Your task to perform on an android device: set default search engine in the chrome app Image 0: 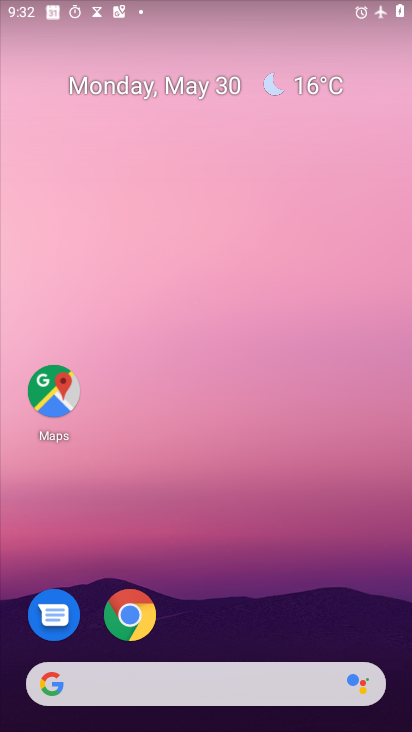
Step 0: drag from (305, 578) to (304, 144)
Your task to perform on an android device: set default search engine in the chrome app Image 1: 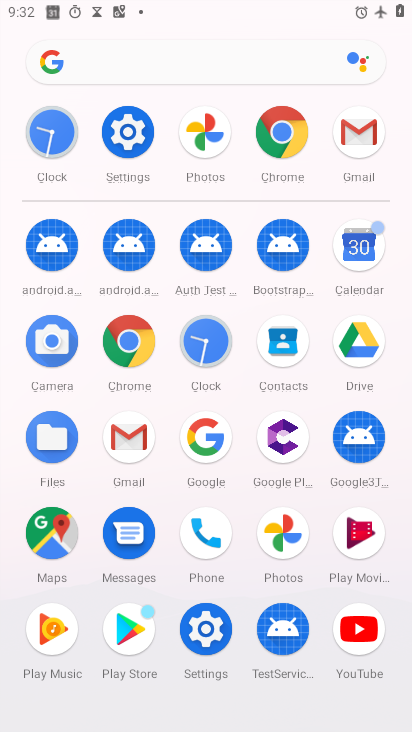
Step 1: click (285, 131)
Your task to perform on an android device: set default search engine in the chrome app Image 2: 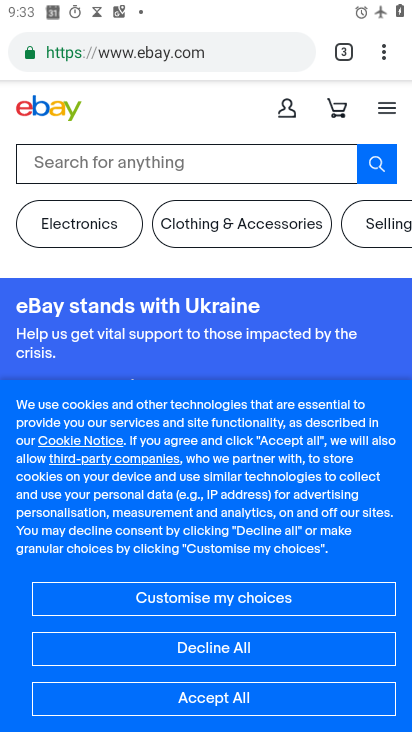
Step 2: drag from (387, 51) to (227, 569)
Your task to perform on an android device: set default search engine in the chrome app Image 3: 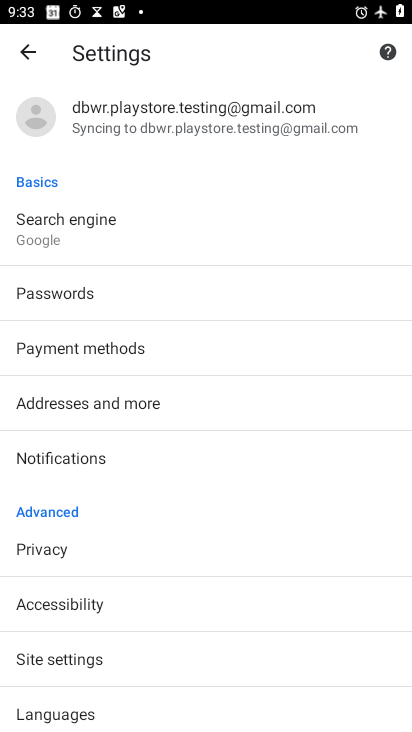
Step 3: click (51, 239)
Your task to perform on an android device: set default search engine in the chrome app Image 4: 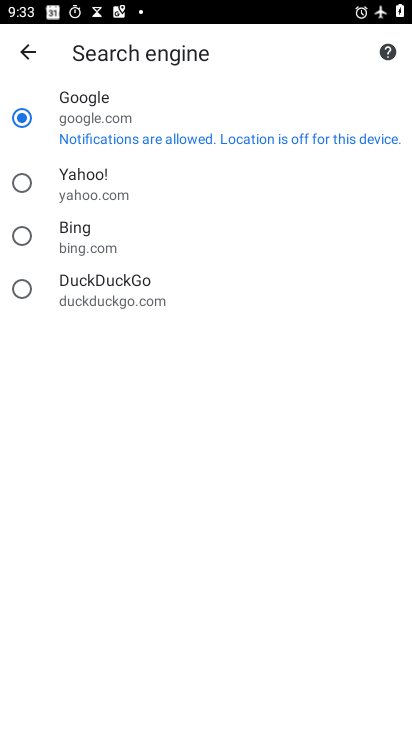
Step 4: task complete